Your task to perform on an android device: Open Wikipedia Image 0: 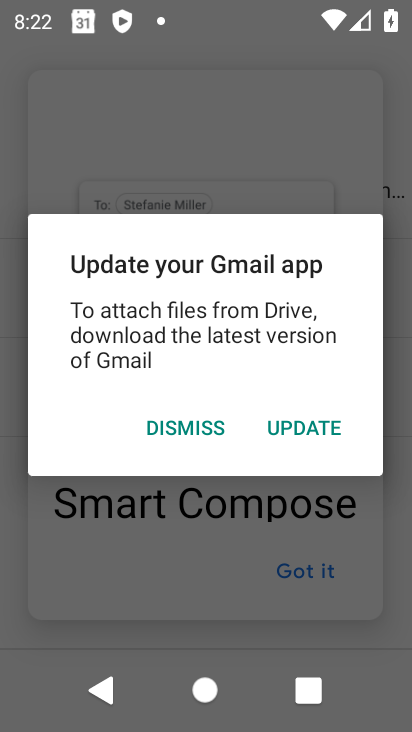
Step 0: press home button
Your task to perform on an android device: Open Wikipedia Image 1: 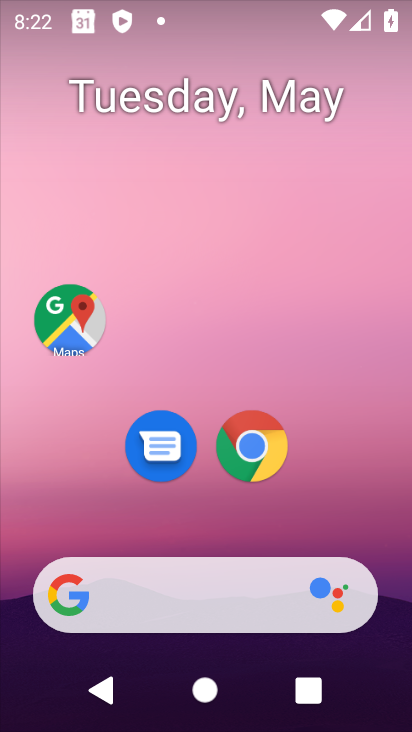
Step 1: click (133, 597)
Your task to perform on an android device: Open Wikipedia Image 2: 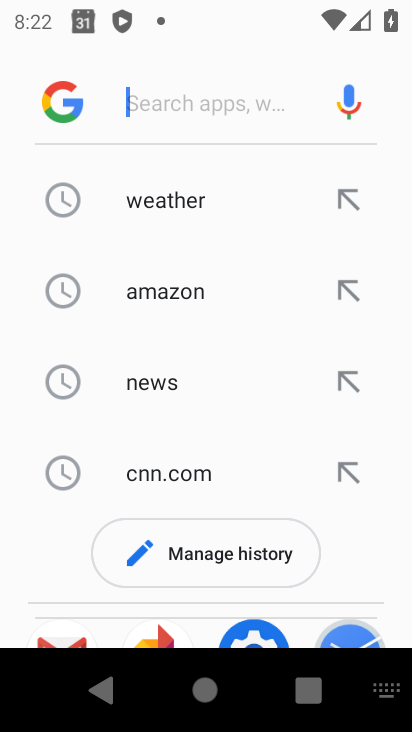
Step 2: click (151, 105)
Your task to perform on an android device: Open Wikipedia Image 3: 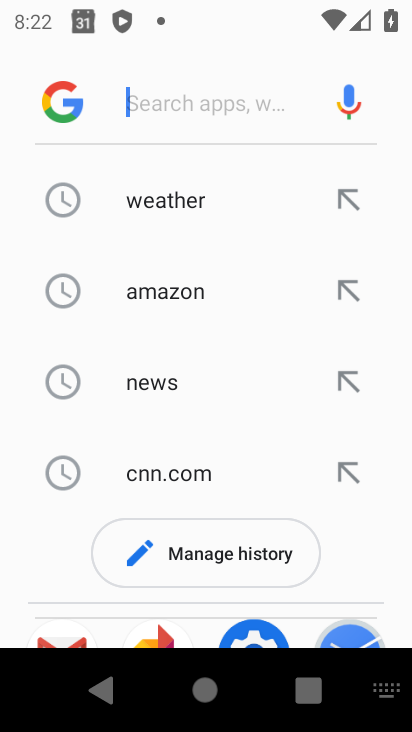
Step 3: type "wikipedia"
Your task to perform on an android device: Open Wikipedia Image 4: 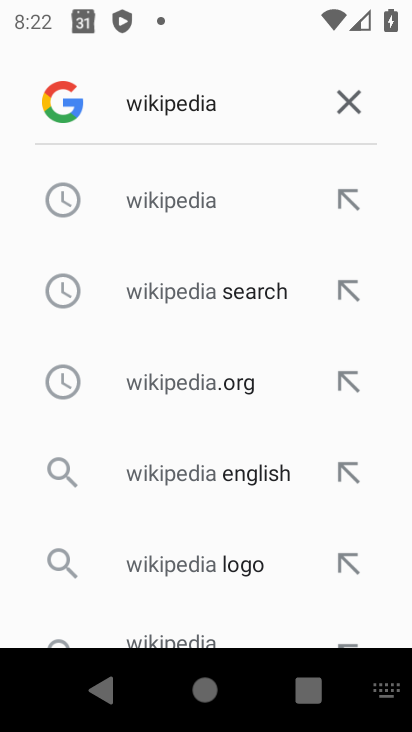
Step 4: click (142, 201)
Your task to perform on an android device: Open Wikipedia Image 5: 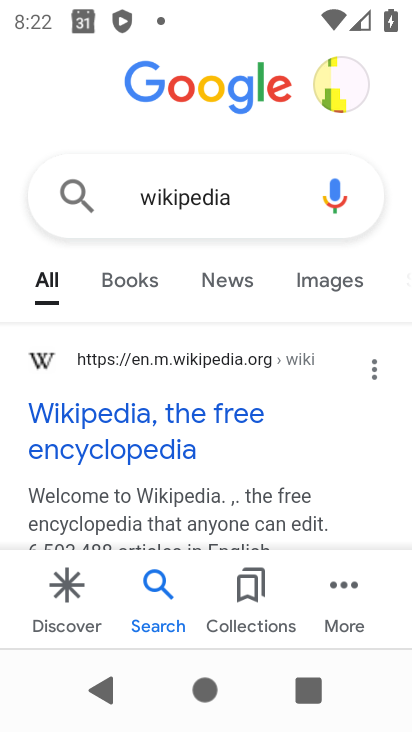
Step 5: click (67, 376)
Your task to perform on an android device: Open Wikipedia Image 6: 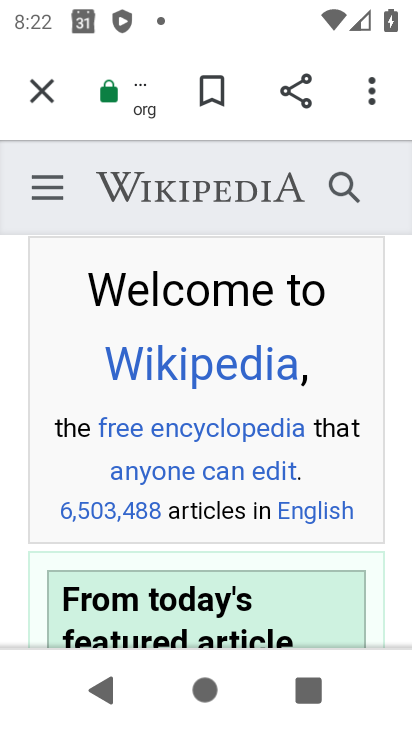
Step 6: task complete